Your task to perform on an android device: Open location settings Image 0: 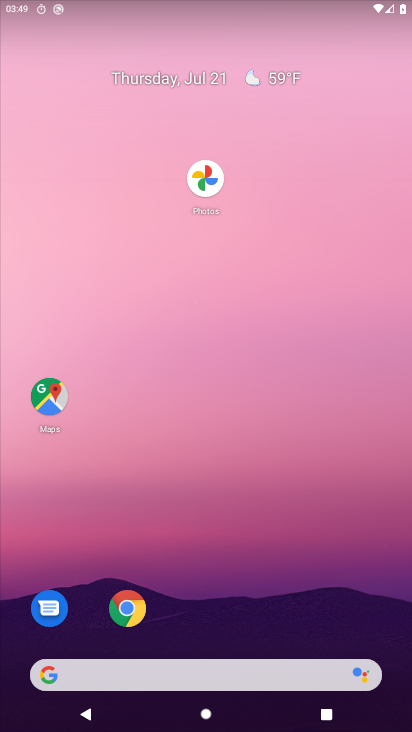
Step 0: press home button
Your task to perform on an android device: Open location settings Image 1: 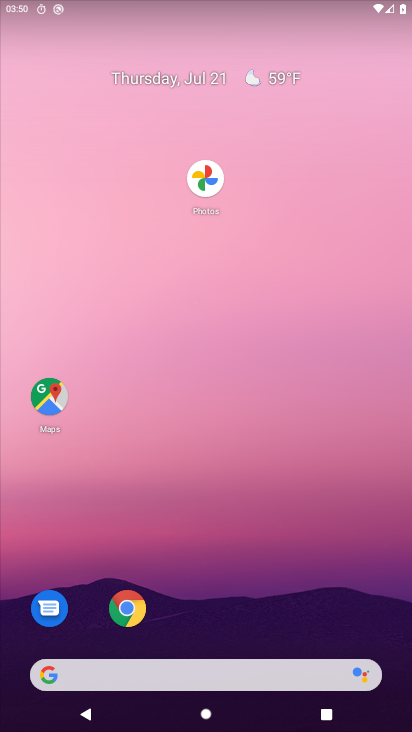
Step 1: drag from (235, 632) to (290, 210)
Your task to perform on an android device: Open location settings Image 2: 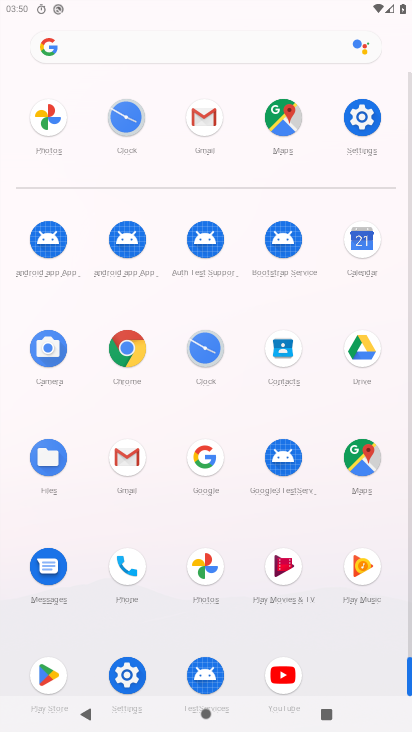
Step 2: click (357, 110)
Your task to perform on an android device: Open location settings Image 3: 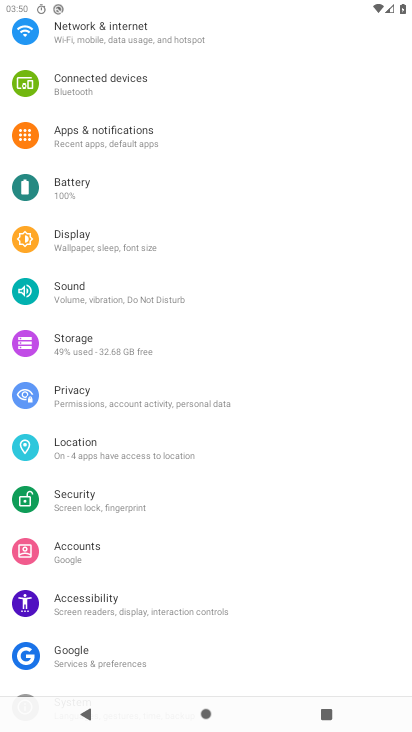
Step 3: click (109, 436)
Your task to perform on an android device: Open location settings Image 4: 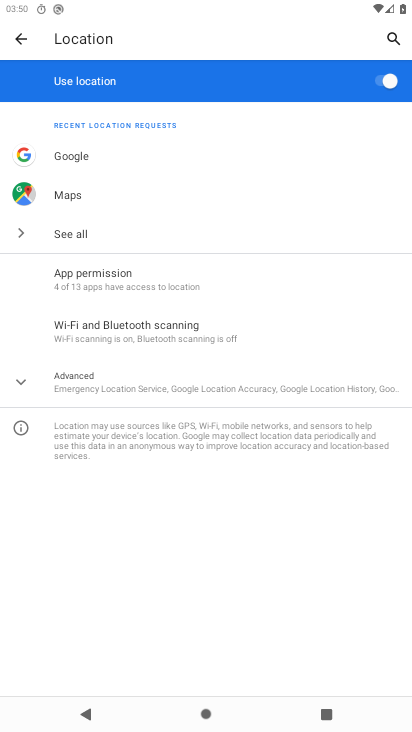
Step 4: click (23, 374)
Your task to perform on an android device: Open location settings Image 5: 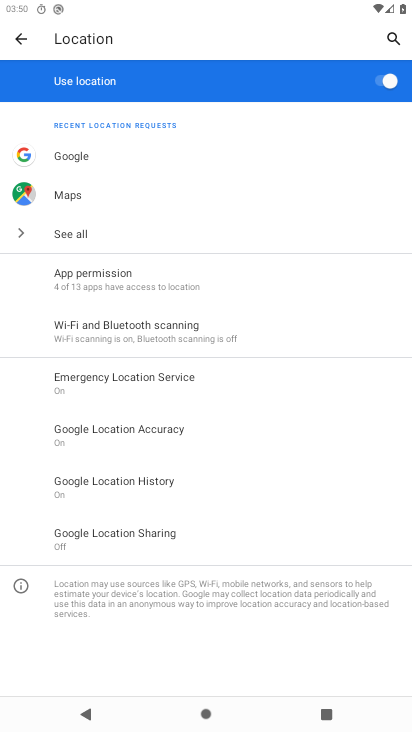
Step 5: task complete